Your task to perform on an android device: install app "Fetch Rewards" Image 0: 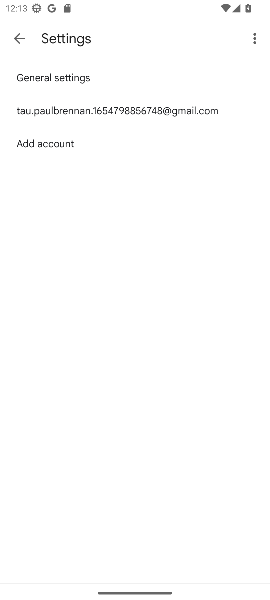
Step 0: press home button
Your task to perform on an android device: install app "Fetch Rewards" Image 1: 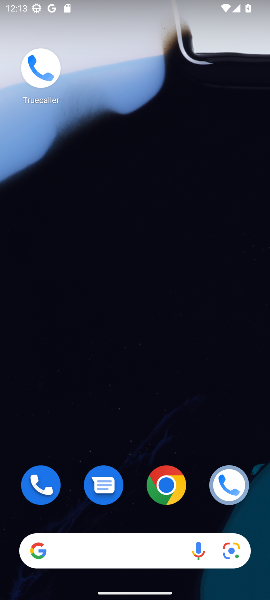
Step 1: drag from (62, 580) to (181, 79)
Your task to perform on an android device: install app "Fetch Rewards" Image 2: 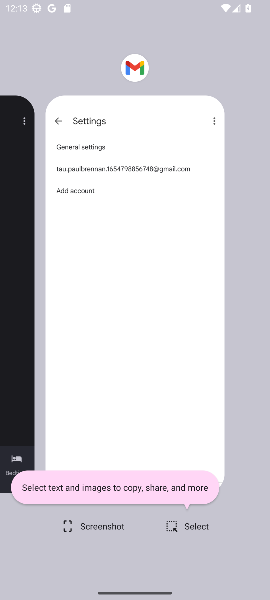
Step 2: press home button
Your task to perform on an android device: install app "Fetch Rewards" Image 3: 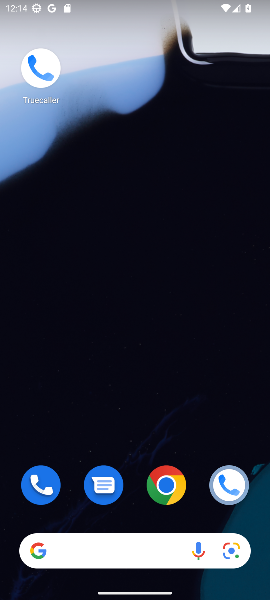
Step 3: drag from (60, 590) to (189, 336)
Your task to perform on an android device: install app "Fetch Rewards" Image 4: 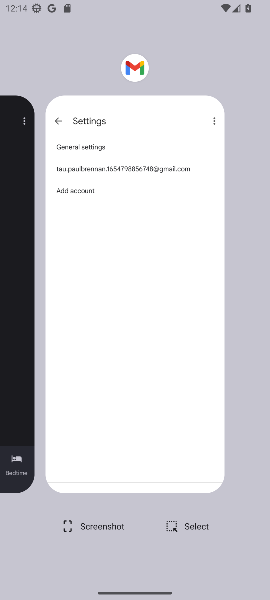
Step 4: press home button
Your task to perform on an android device: install app "Fetch Rewards" Image 5: 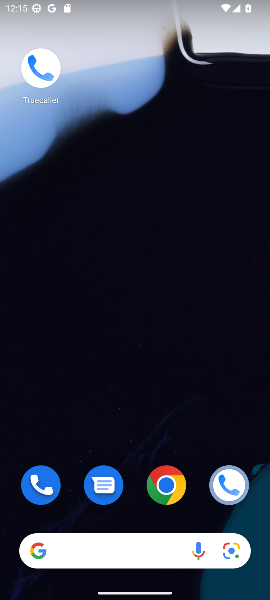
Step 5: drag from (39, 583) to (148, 284)
Your task to perform on an android device: install app "Fetch Rewards" Image 6: 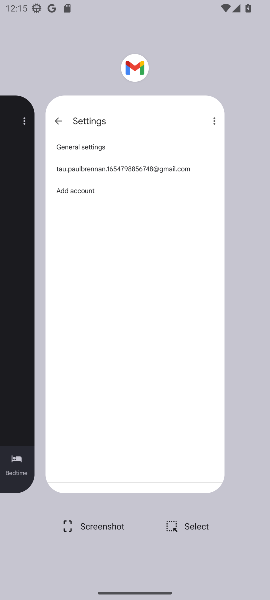
Step 6: drag from (125, 197) to (250, 453)
Your task to perform on an android device: install app "Fetch Rewards" Image 7: 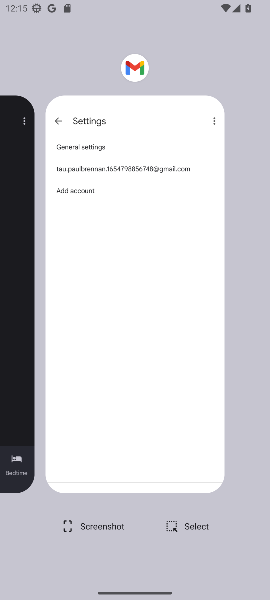
Step 7: press home button
Your task to perform on an android device: install app "Fetch Rewards" Image 8: 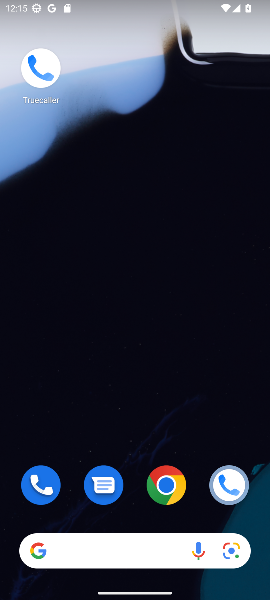
Step 8: drag from (64, 573) to (266, 117)
Your task to perform on an android device: install app "Fetch Rewards" Image 9: 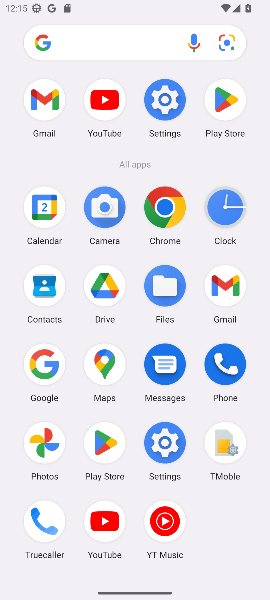
Step 9: click (204, 113)
Your task to perform on an android device: install app "Fetch Rewards" Image 10: 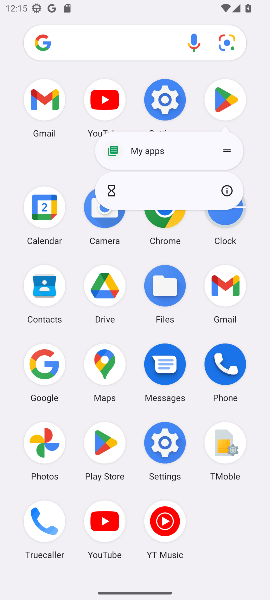
Step 10: click (215, 104)
Your task to perform on an android device: install app "Fetch Rewards" Image 11: 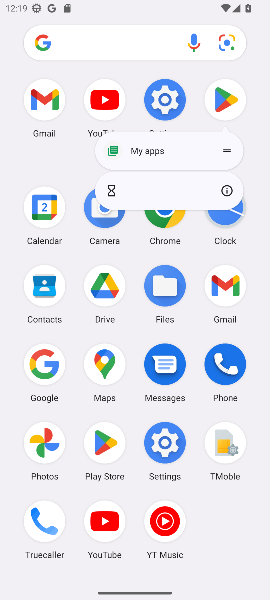
Step 11: click (227, 95)
Your task to perform on an android device: install app "Fetch Rewards" Image 12: 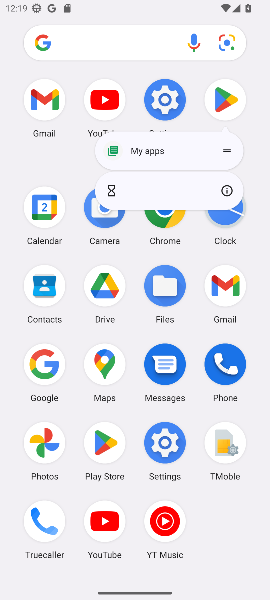
Step 12: click (227, 95)
Your task to perform on an android device: install app "Fetch Rewards" Image 13: 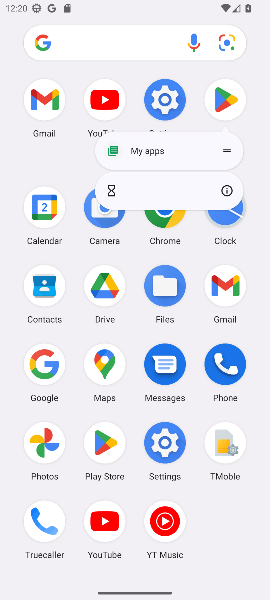
Step 13: click (223, 101)
Your task to perform on an android device: install app "Fetch Rewards" Image 14: 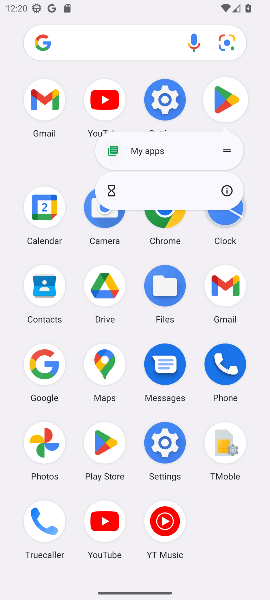
Step 14: click (223, 101)
Your task to perform on an android device: install app "Fetch Rewards" Image 15: 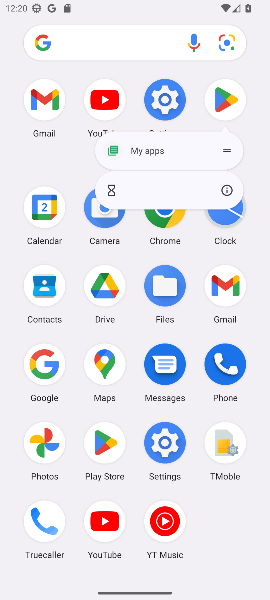
Step 15: click (223, 101)
Your task to perform on an android device: install app "Fetch Rewards" Image 16: 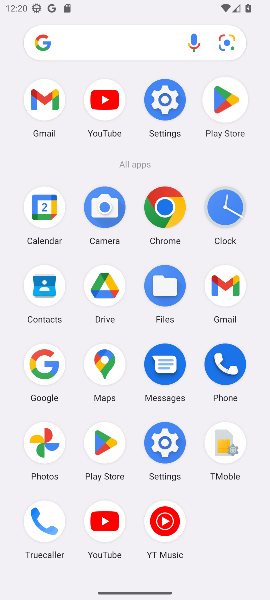
Step 16: click (223, 101)
Your task to perform on an android device: install app "Fetch Rewards" Image 17: 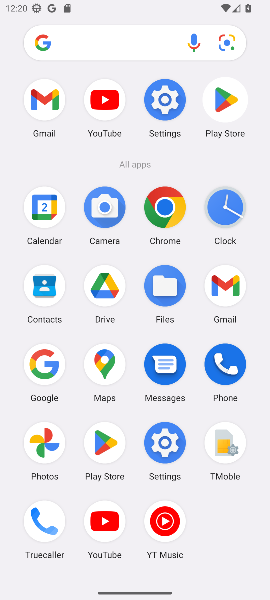
Step 17: click (223, 99)
Your task to perform on an android device: install app "Fetch Rewards" Image 18: 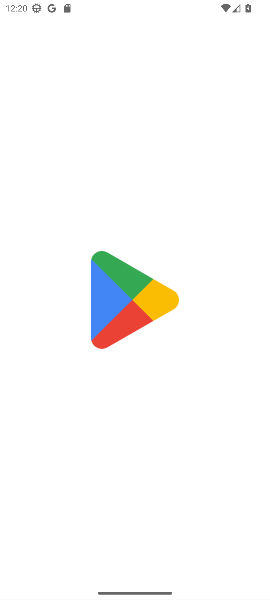
Step 18: click (223, 96)
Your task to perform on an android device: install app "Fetch Rewards" Image 19: 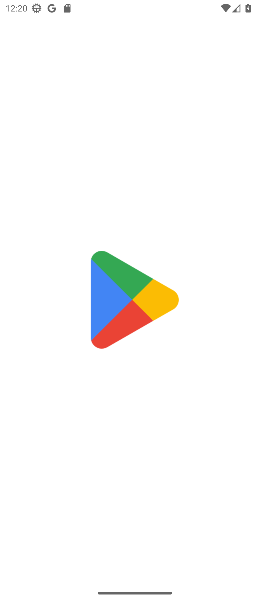
Step 19: click (223, 96)
Your task to perform on an android device: install app "Fetch Rewards" Image 20: 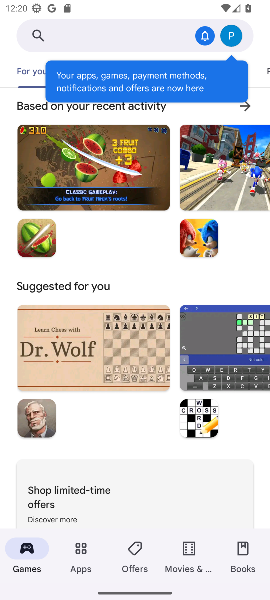
Step 20: click (119, 37)
Your task to perform on an android device: install app "Fetch Rewards" Image 21: 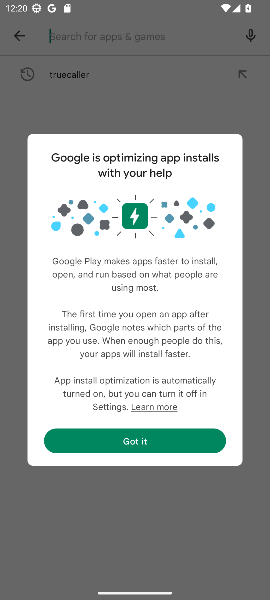
Step 21: type "fetch rewards"
Your task to perform on an android device: install app "Fetch Rewards" Image 22: 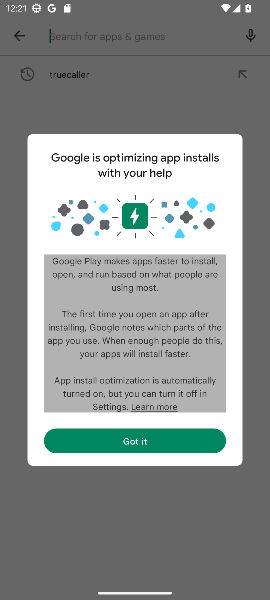
Step 22: click (162, 440)
Your task to perform on an android device: install app "Fetch Rewards" Image 23: 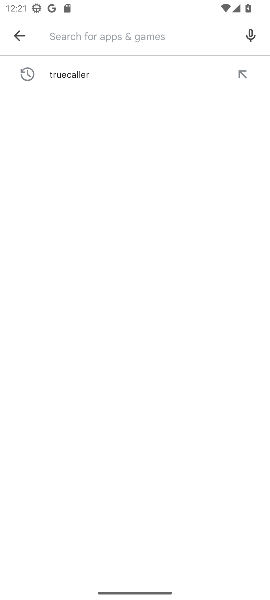
Step 23: type "fetch rewards"
Your task to perform on an android device: install app "Fetch Rewards" Image 24: 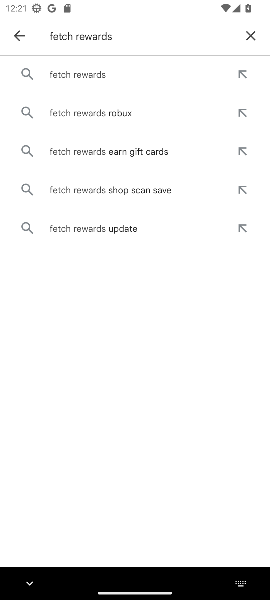
Step 24: click (104, 75)
Your task to perform on an android device: install app "Fetch Rewards" Image 25: 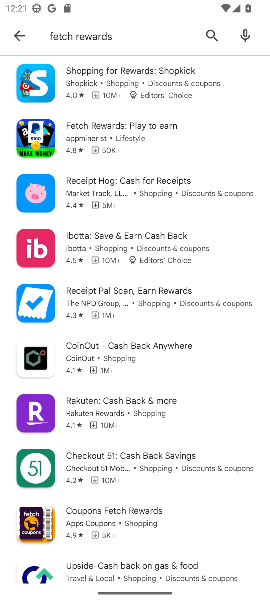
Step 25: task complete